Your task to perform on an android device: Search for pizza restaurants on Maps Image 0: 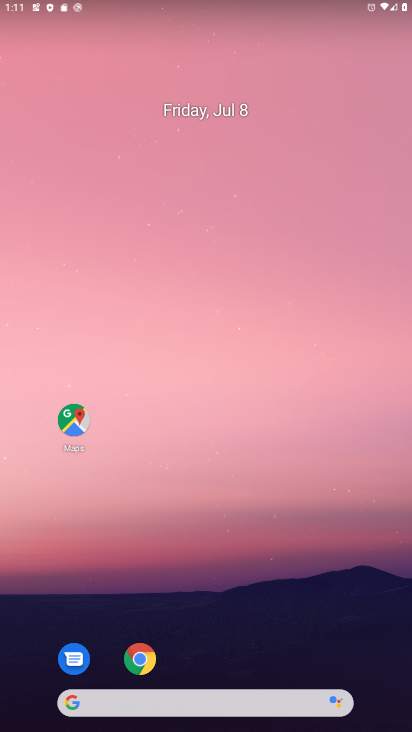
Step 0: click (71, 420)
Your task to perform on an android device: Search for pizza restaurants on Maps Image 1: 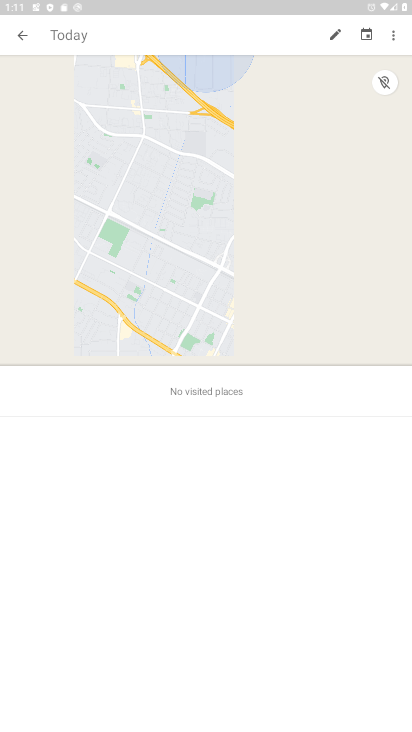
Step 1: click (13, 36)
Your task to perform on an android device: Search for pizza restaurants on Maps Image 2: 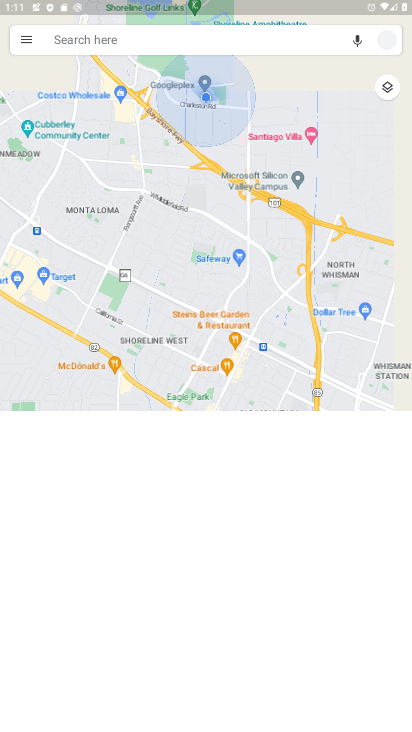
Step 2: click (133, 33)
Your task to perform on an android device: Search for pizza restaurants on Maps Image 3: 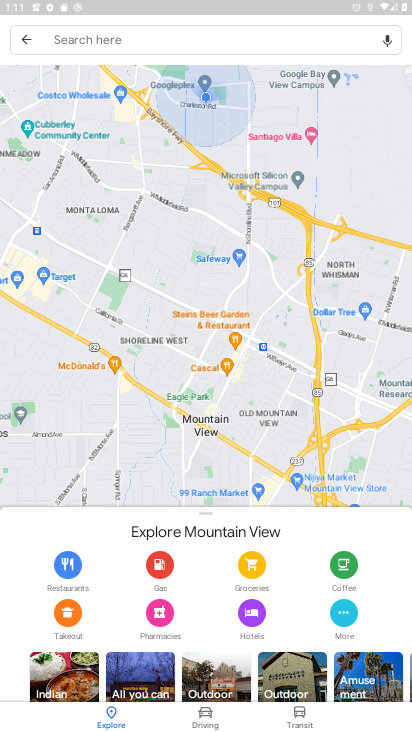
Step 3: click (133, 33)
Your task to perform on an android device: Search for pizza restaurants on Maps Image 4: 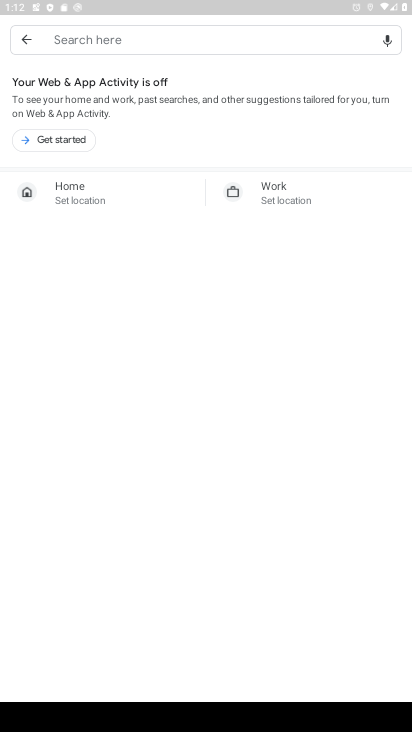
Step 4: type "pizza restaurants"
Your task to perform on an android device: Search for pizza restaurants on Maps Image 5: 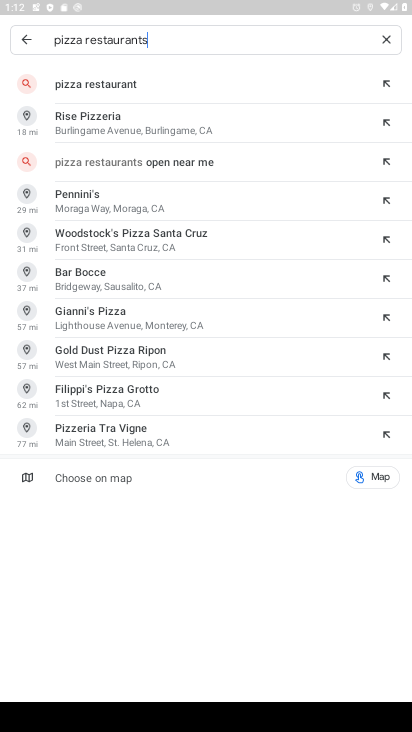
Step 5: click (118, 78)
Your task to perform on an android device: Search for pizza restaurants on Maps Image 6: 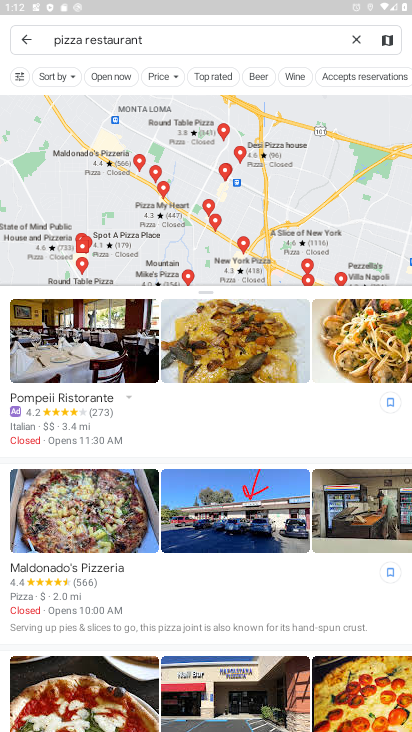
Step 6: task complete